Your task to perform on an android device: Go to settings Image 0: 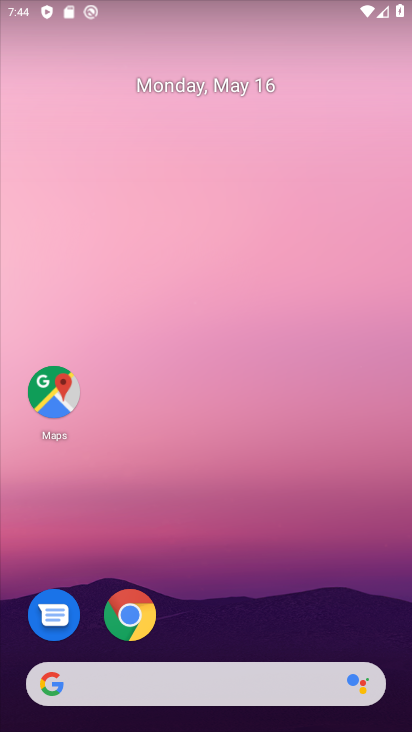
Step 0: drag from (221, 646) to (319, 136)
Your task to perform on an android device: Go to settings Image 1: 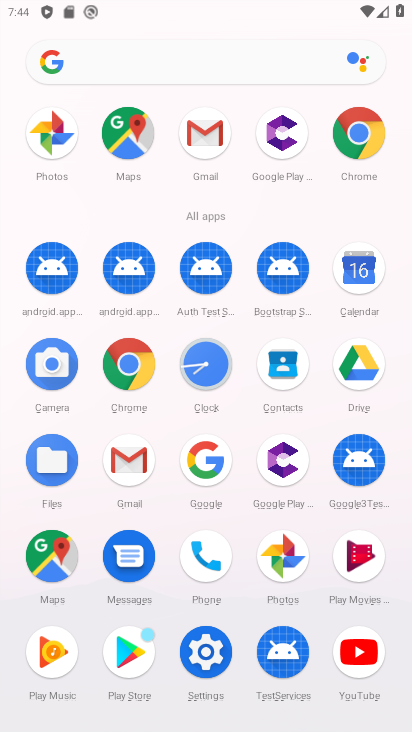
Step 1: drag from (227, 463) to (292, 240)
Your task to perform on an android device: Go to settings Image 2: 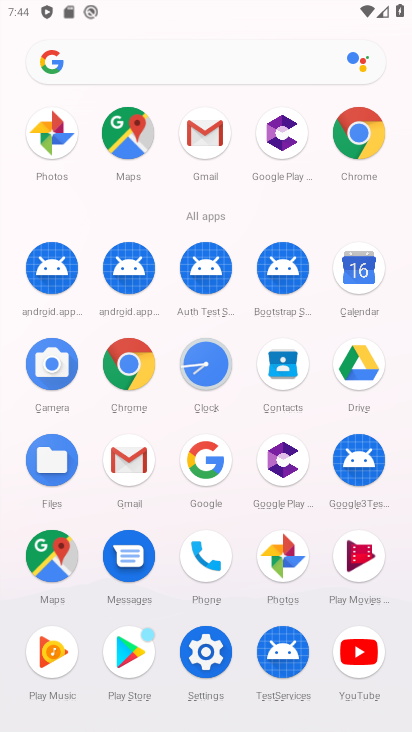
Step 2: click (203, 658)
Your task to perform on an android device: Go to settings Image 3: 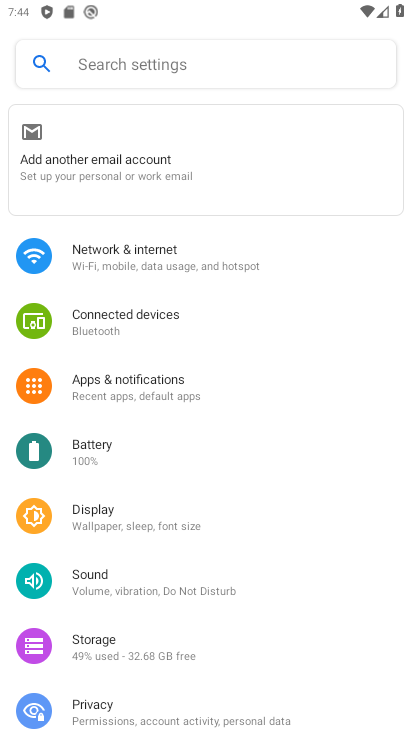
Step 3: task complete